Your task to perform on an android device: delete a single message in the gmail app Image 0: 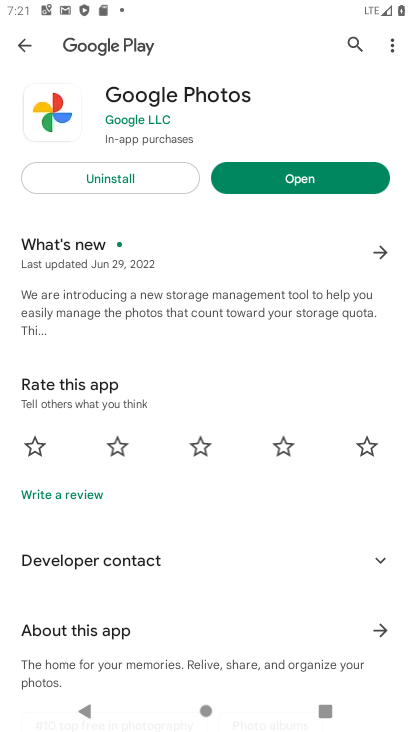
Step 0: press home button
Your task to perform on an android device: delete a single message in the gmail app Image 1: 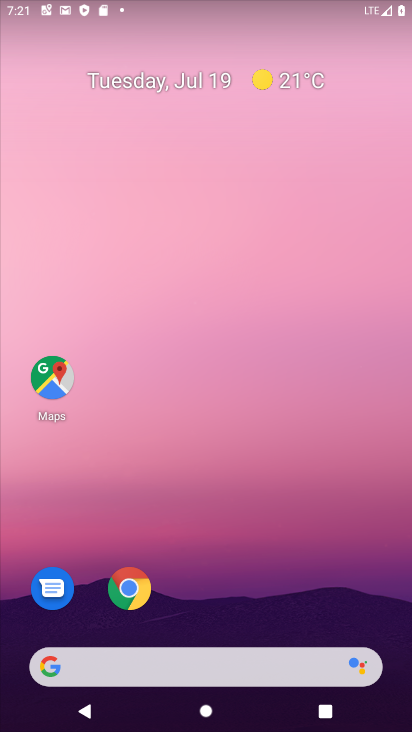
Step 1: drag from (307, 580) to (277, 135)
Your task to perform on an android device: delete a single message in the gmail app Image 2: 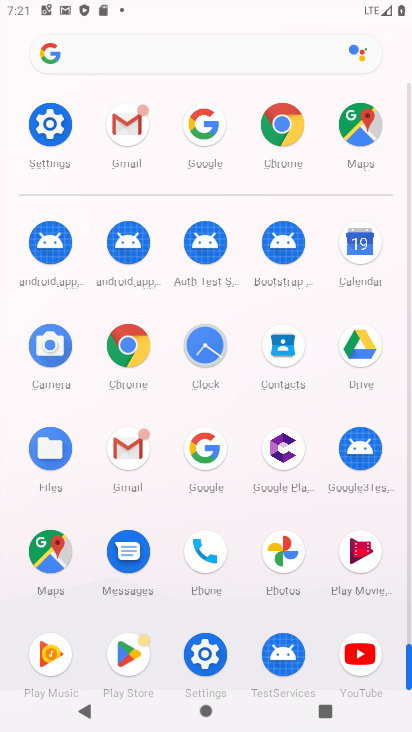
Step 2: click (134, 456)
Your task to perform on an android device: delete a single message in the gmail app Image 3: 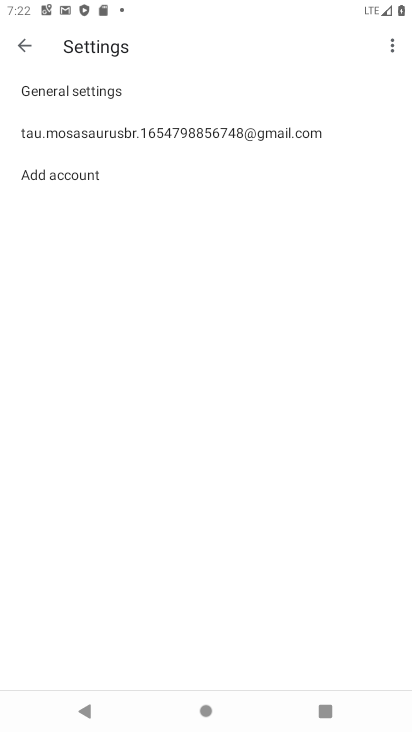
Step 3: press back button
Your task to perform on an android device: delete a single message in the gmail app Image 4: 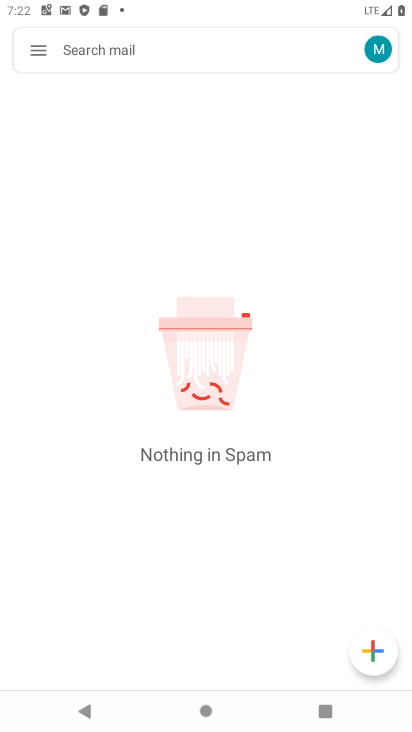
Step 4: click (28, 56)
Your task to perform on an android device: delete a single message in the gmail app Image 5: 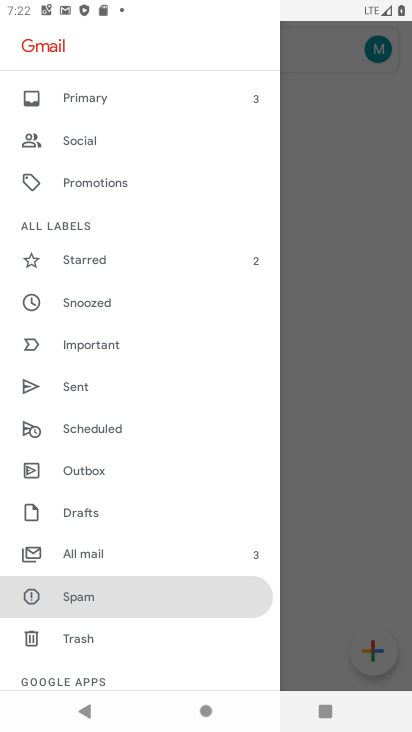
Step 5: click (144, 550)
Your task to perform on an android device: delete a single message in the gmail app Image 6: 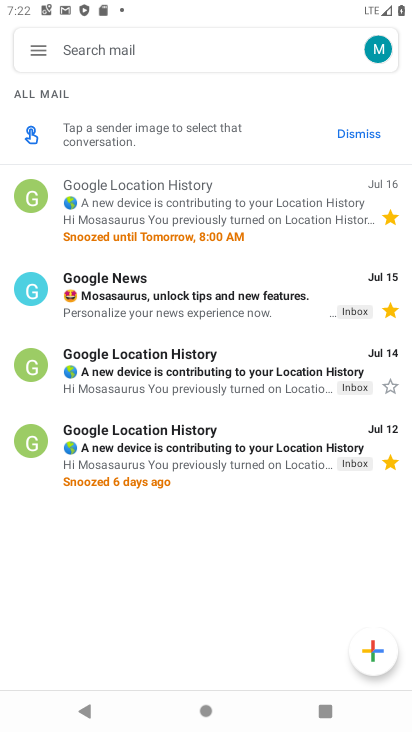
Step 6: click (275, 238)
Your task to perform on an android device: delete a single message in the gmail app Image 7: 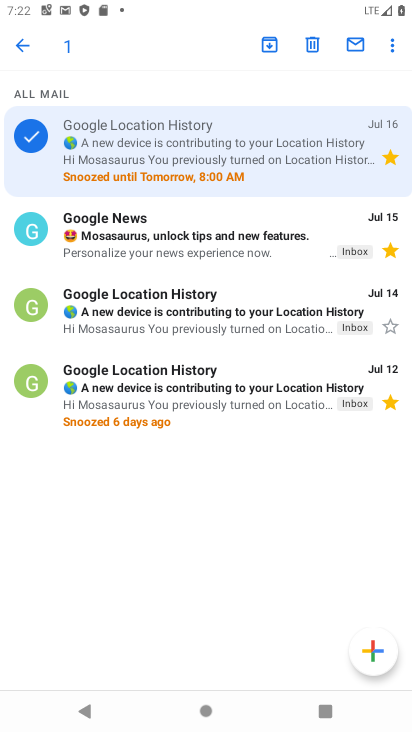
Step 7: click (315, 49)
Your task to perform on an android device: delete a single message in the gmail app Image 8: 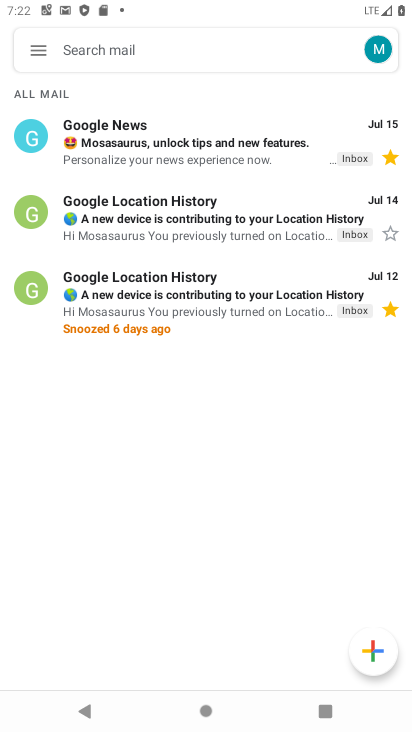
Step 8: task complete